Your task to perform on an android device: change notifications settings Image 0: 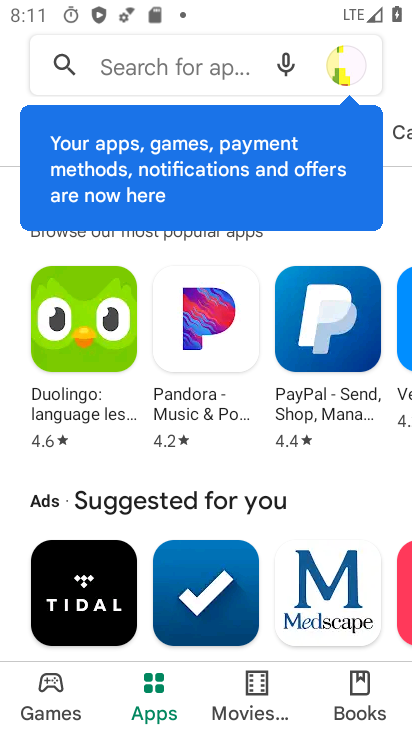
Step 0: press home button
Your task to perform on an android device: change notifications settings Image 1: 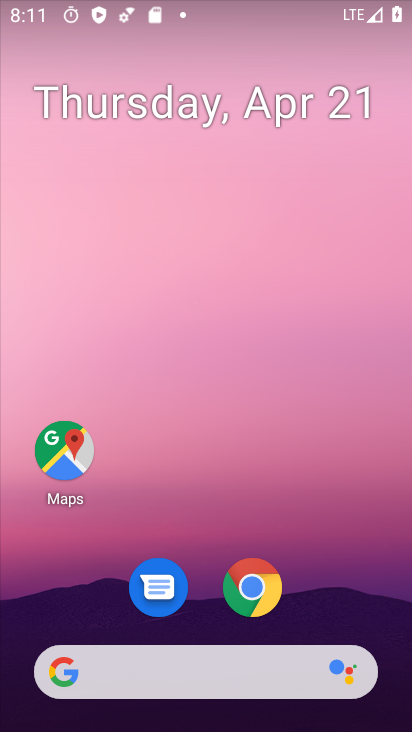
Step 1: click (345, 291)
Your task to perform on an android device: change notifications settings Image 2: 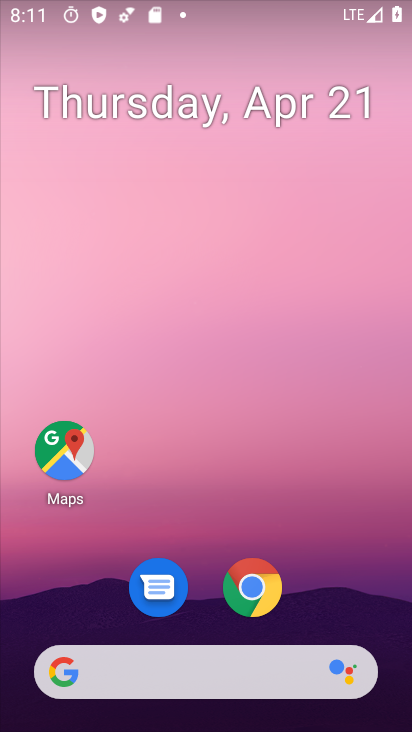
Step 2: drag from (373, 418) to (366, 266)
Your task to perform on an android device: change notifications settings Image 3: 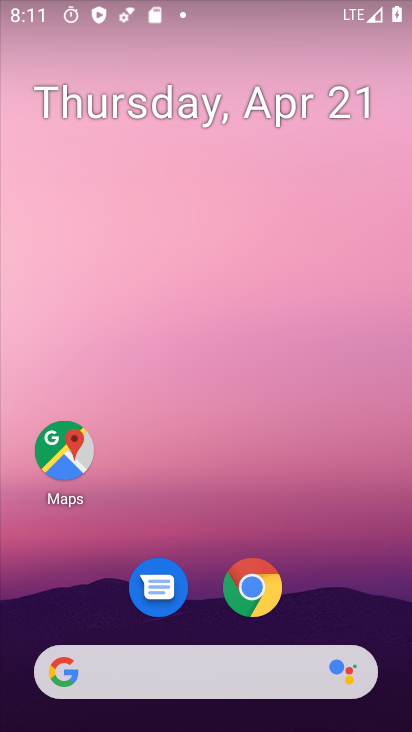
Step 3: click (378, 254)
Your task to perform on an android device: change notifications settings Image 4: 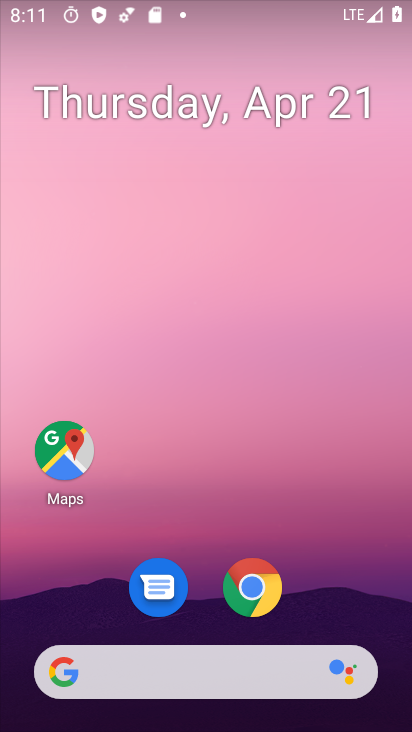
Step 4: drag from (384, 441) to (376, 95)
Your task to perform on an android device: change notifications settings Image 5: 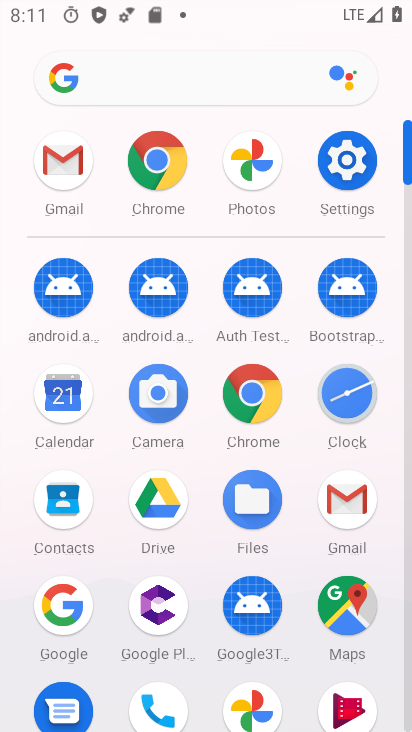
Step 5: click (350, 165)
Your task to perform on an android device: change notifications settings Image 6: 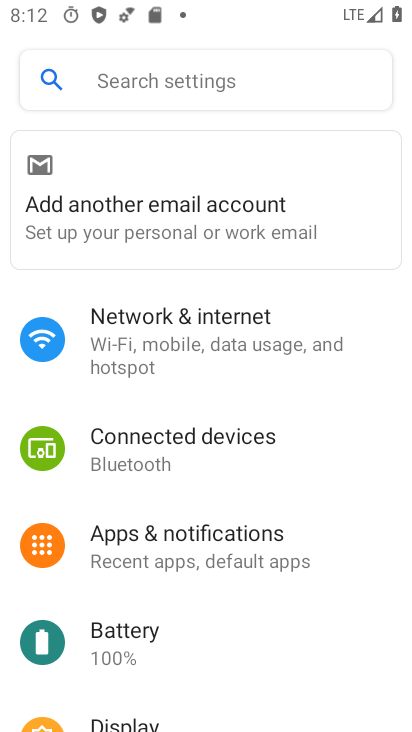
Step 6: click (164, 541)
Your task to perform on an android device: change notifications settings Image 7: 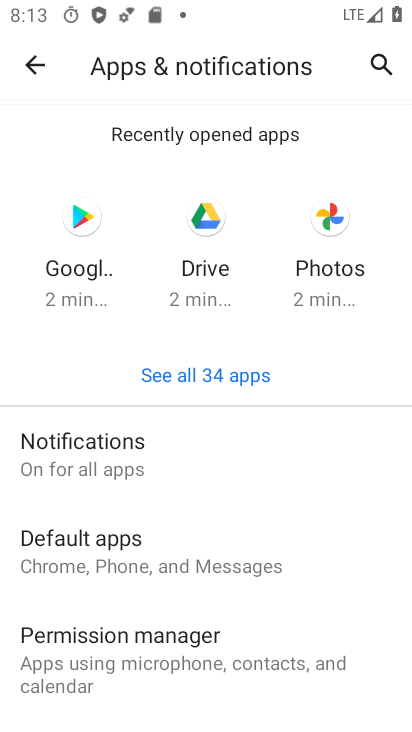
Step 7: click (84, 452)
Your task to perform on an android device: change notifications settings Image 8: 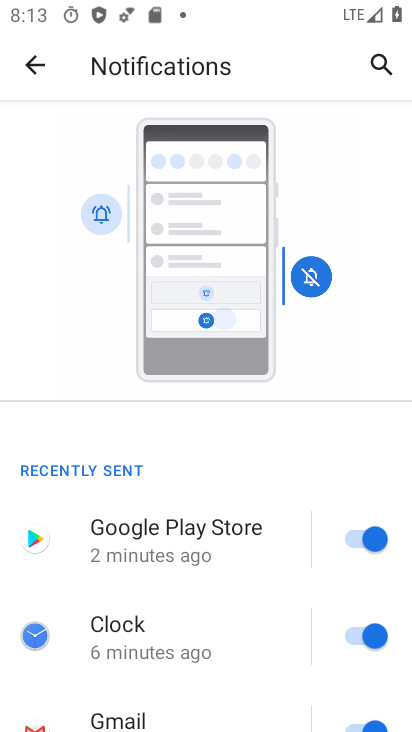
Step 8: click (348, 619)
Your task to perform on an android device: change notifications settings Image 9: 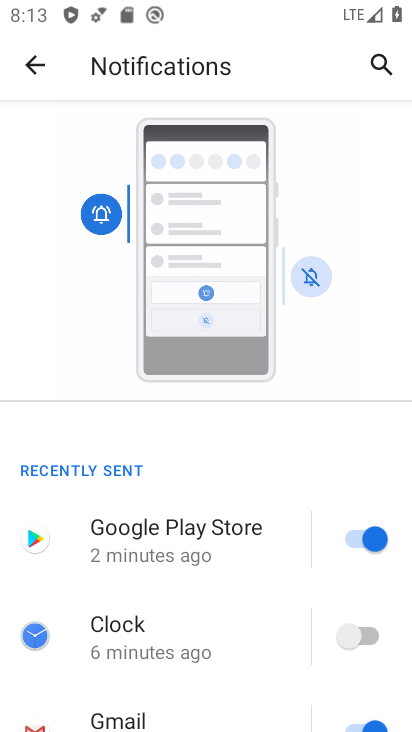
Step 9: click (350, 727)
Your task to perform on an android device: change notifications settings Image 10: 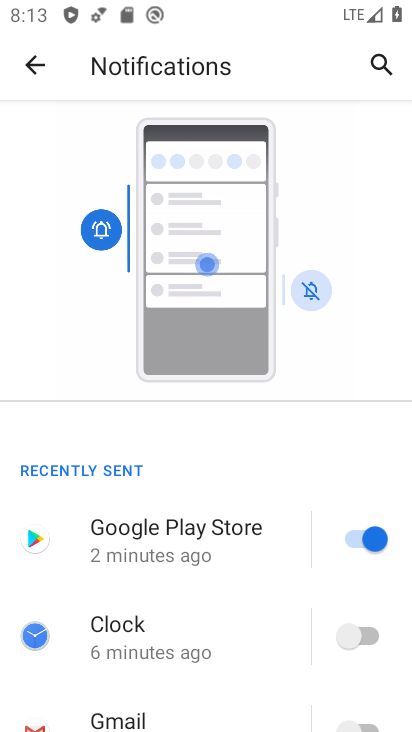
Step 10: click (354, 534)
Your task to perform on an android device: change notifications settings Image 11: 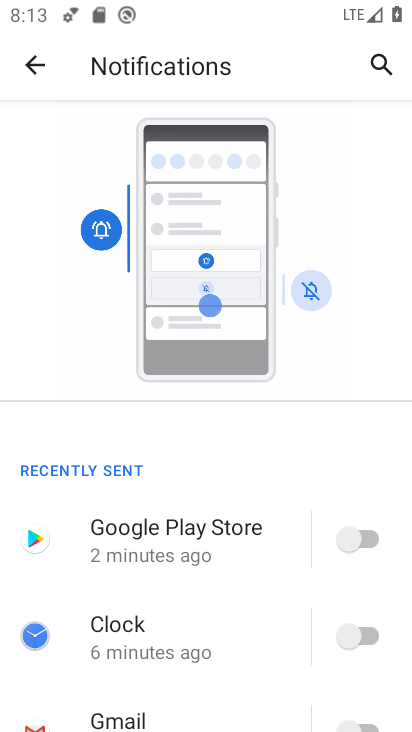
Step 11: drag from (265, 414) to (265, 358)
Your task to perform on an android device: change notifications settings Image 12: 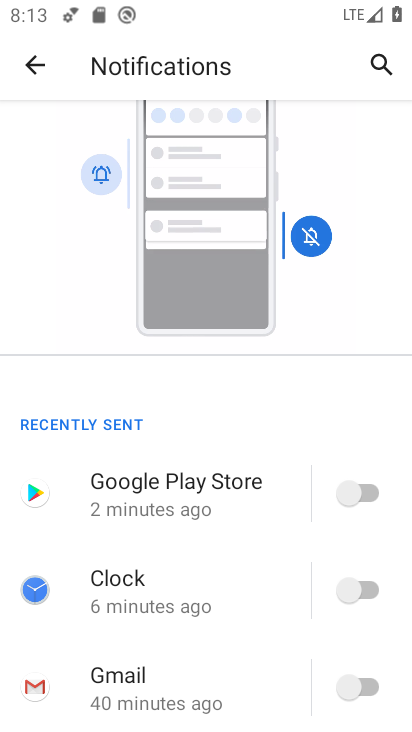
Step 12: click (259, 445)
Your task to perform on an android device: change notifications settings Image 13: 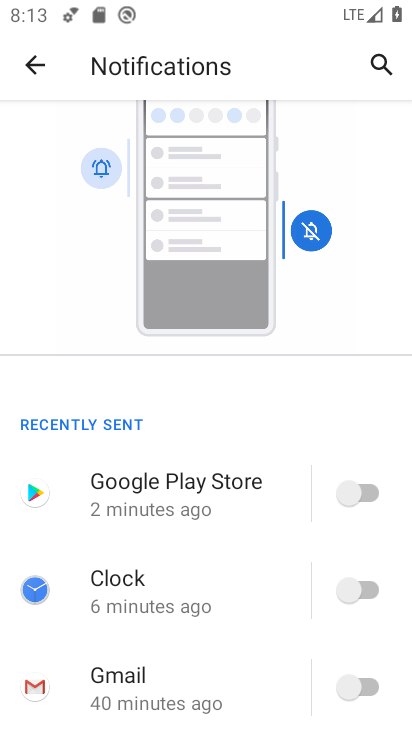
Step 13: task complete